Your task to perform on an android device: turn on the 12-hour format for clock Image 0: 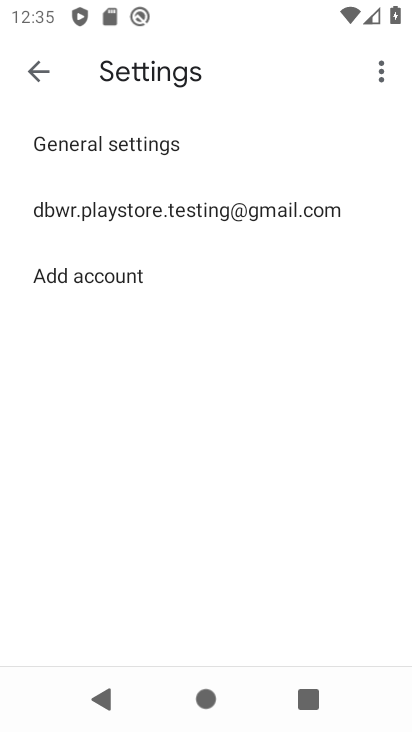
Step 0: press home button
Your task to perform on an android device: turn on the 12-hour format for clock Image 1: 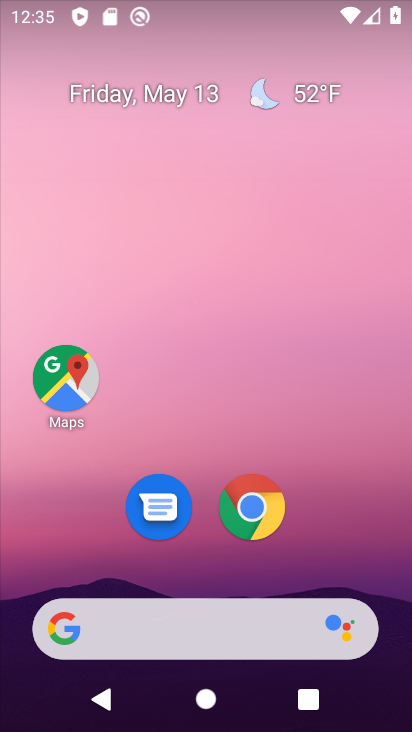
Step 1: drag from (202, 581) to (217, 219)
Your task to perform on an android device: turn on the 12-hour format for clock Image 2: 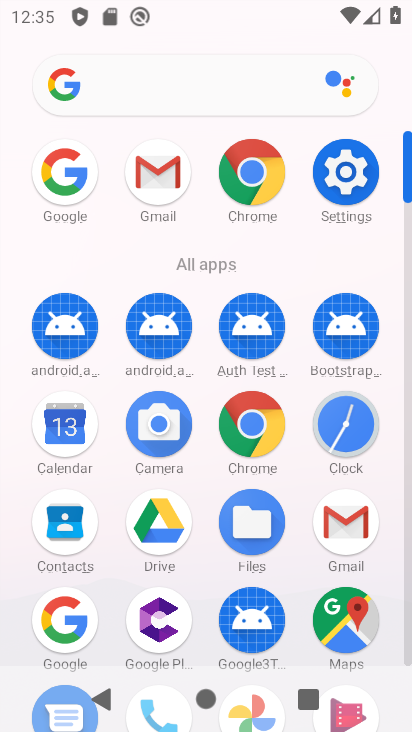
Step 2: click (341, 428)
Your task to perform on an android device: turn on the 12-hour format for clock Image 3: 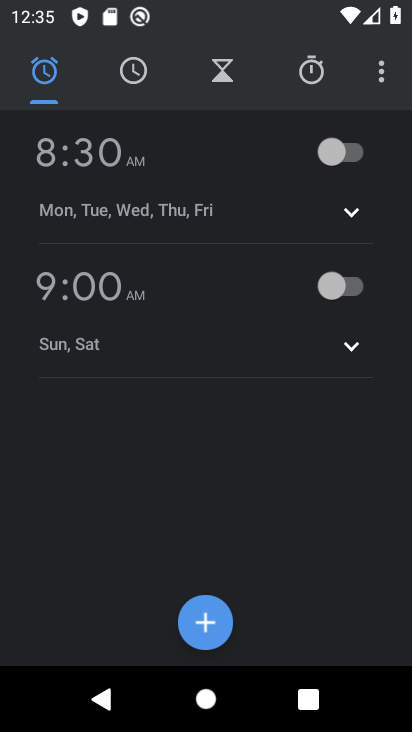
Step 3: click (381, 71)
Your task to perform on an android device: turn on the 12-hour format for clock Image 4: 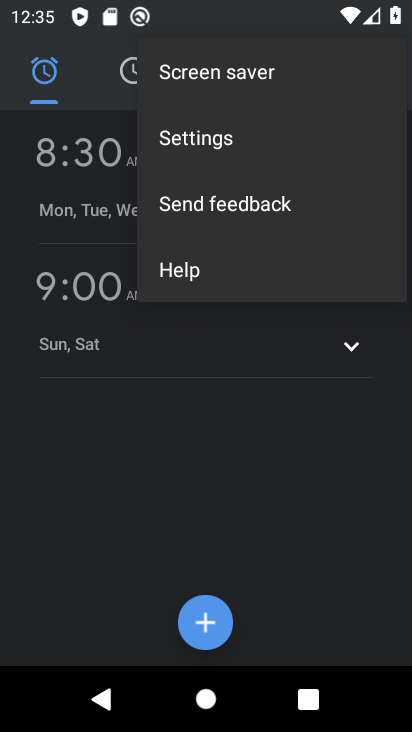
Step 4: click (227, 134)
Your task to perform on an android device: turn on the 12-hour format for clock Image 5: 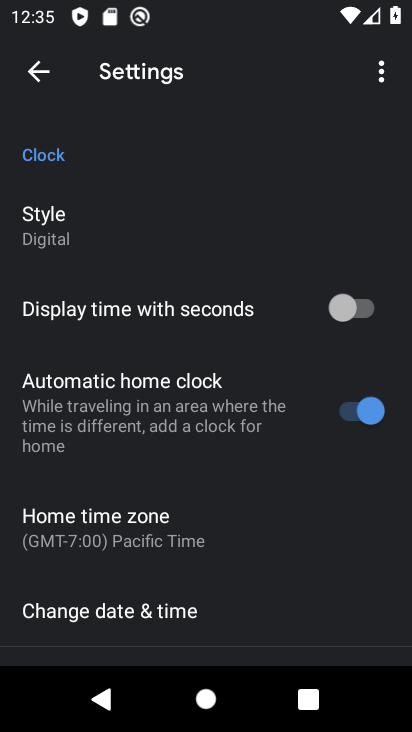
Step 5: drag from (180, 579) to (195, 312)
Your task to perform on an android device: turn on the 12-hour format for clock Image 6: 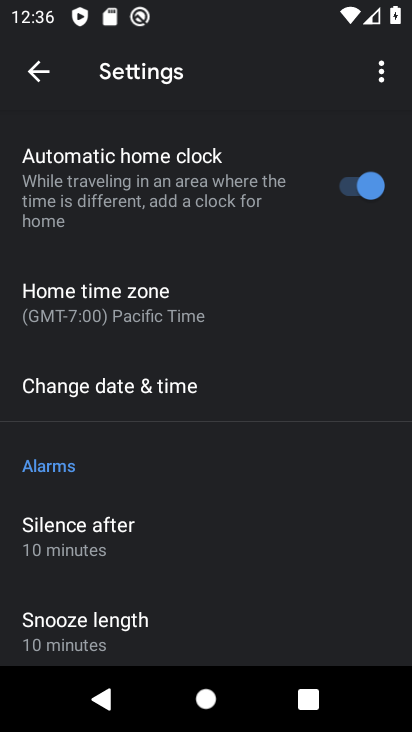
Step 6: click (126, 392)
Your task to perform on an android device: turn on the 12-hour format for clock Image 7: 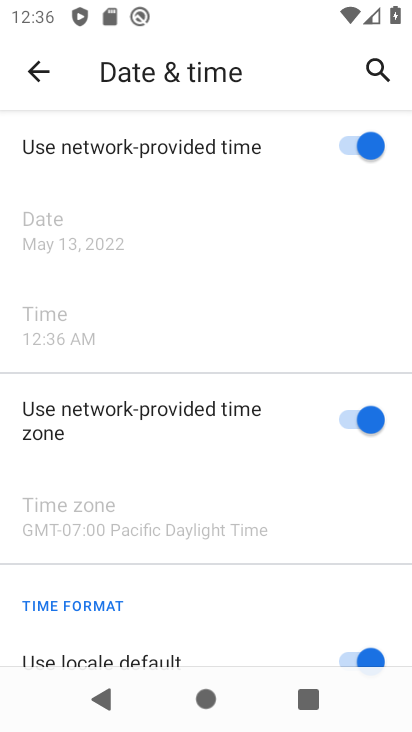
Step 7: drag from (150, 651) to (181, 271)
Your task to perform on an android device: turn on the 12-hour format for clock Image 8: 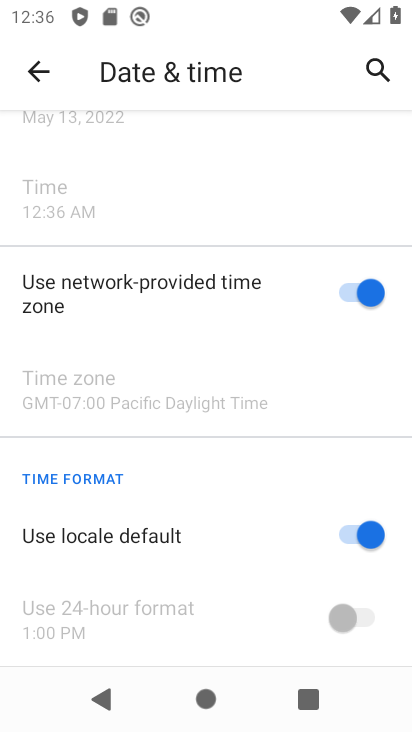
Step 8: click (337, 528)
Your task to perform on an android device: turn on the 12-hour format for clock Image 9: 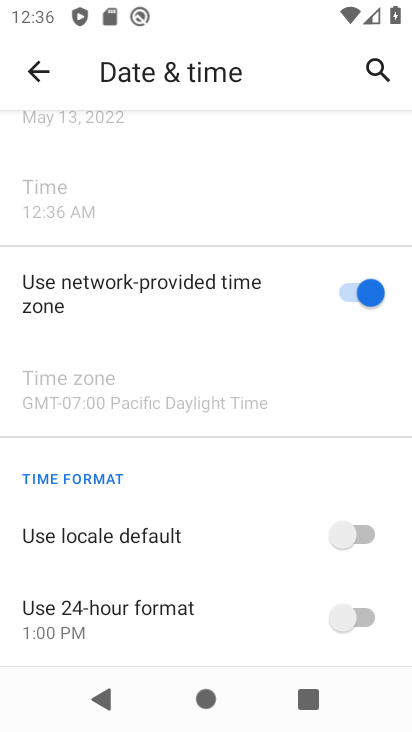
Step 9: task complete